Your task to perform on an android device: Open internet settings Image 0: 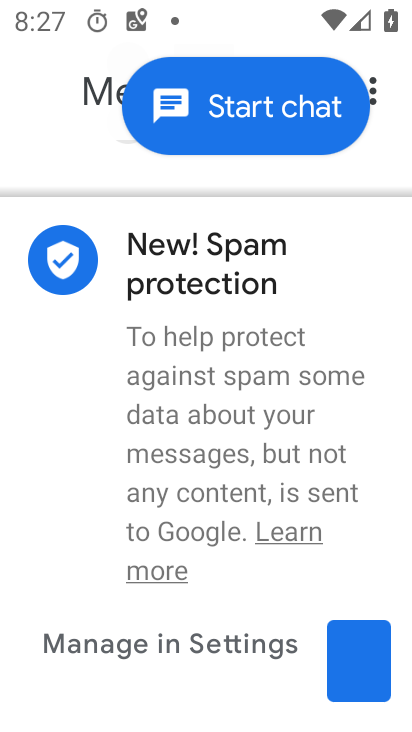
Step 0: press home button
Your task to perform on an android device: Open internet settings Image 1: 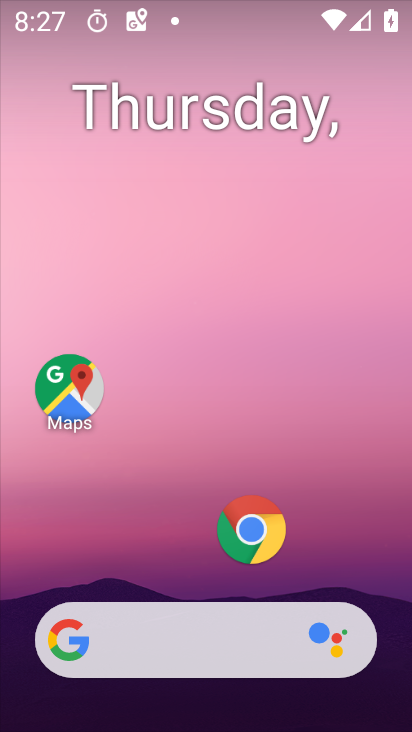
Step 1: drag from (189, 579) to (212, 68)
Your task to perform on an android device: Open internet settings Image 2: 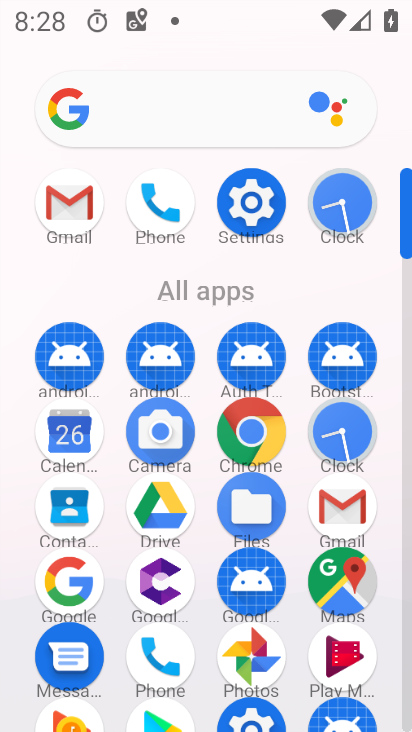
Step 2: click (252, 198)
Your task to perform on an android device: Open internet settings Image 3: 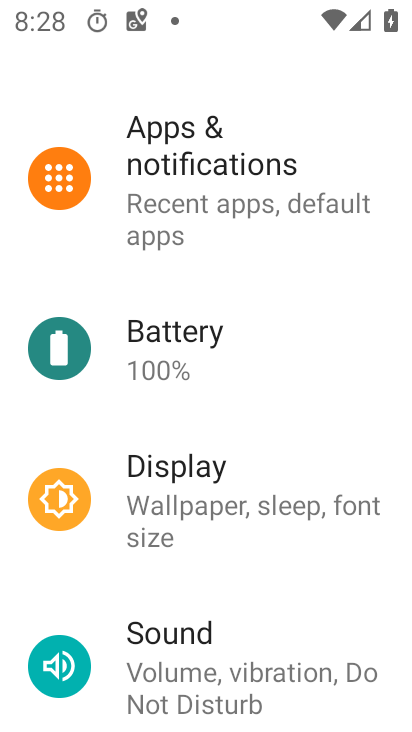
Step 3: drag from (200, 347) to (153, 669)
Your task to perform on an android device: Open internet settings Image 4: 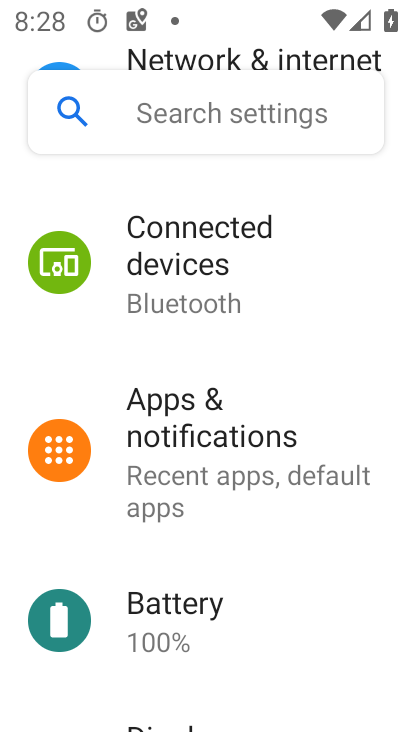
Step 4: drag from (181, 267) to (131, 575)
Your task to perform on an android device: Open internet settings Image 5: 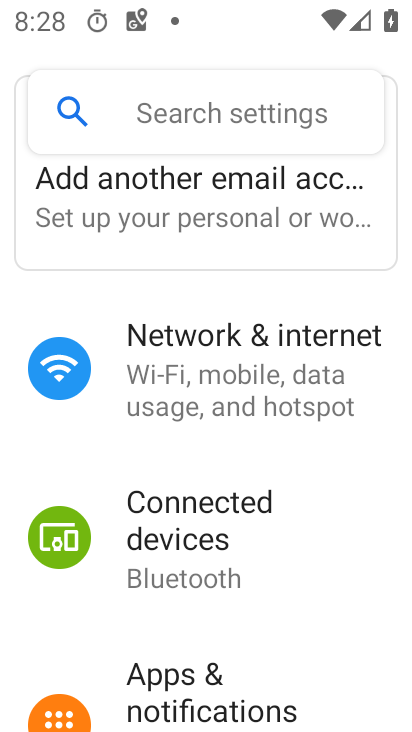
Step 5: click (182, 361)
Your task to perform on an android device: Open internet settings Image 6: 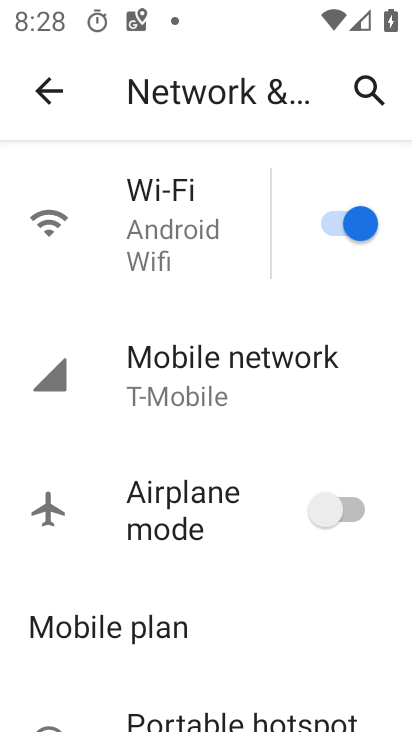
Step 6: drag from (194, 622) to (209, 311)
Your task to perform on an android device: Open internet settings Image 7: 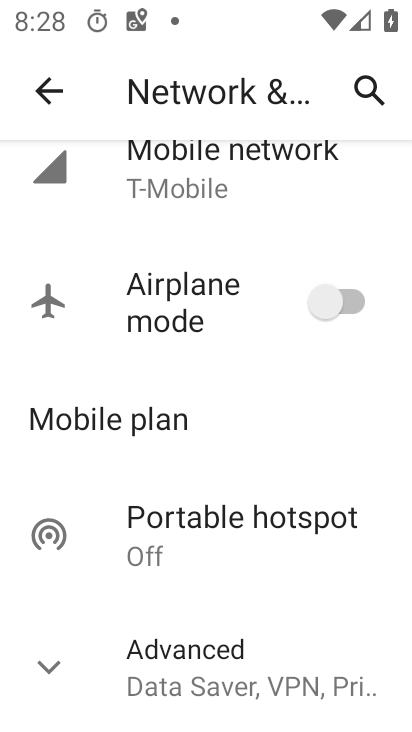
Step 7: drag from (202, 623) to (202, 488)
Your task to perform on an android device: Open internet settings Image 8: 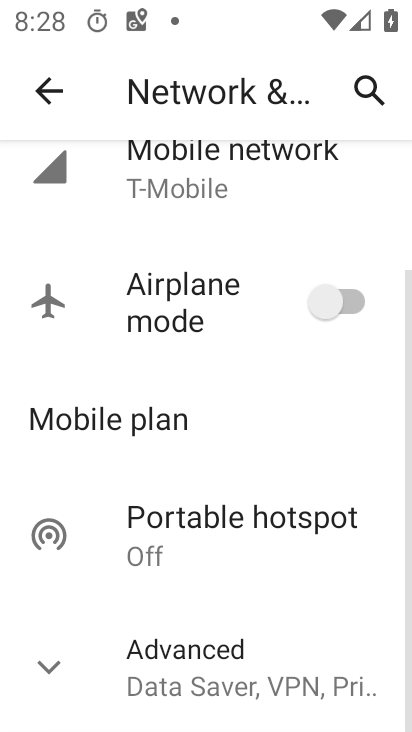
Step 8: click (48, 662)
Your task to perform on an android device: Open internet settings Image 9: 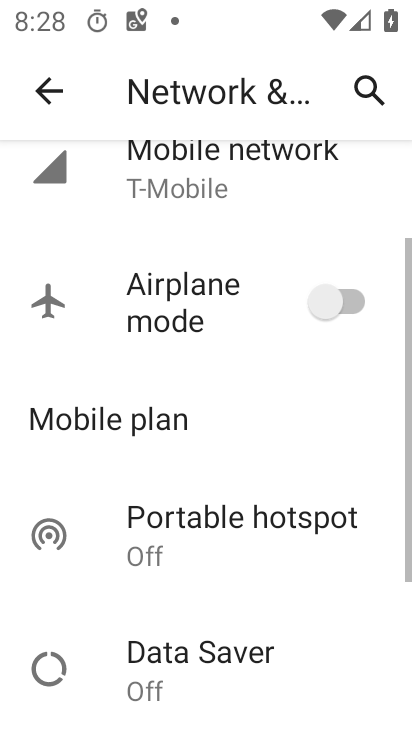
Step 9: task complete